Your task to perform on an android device: Do I have any events this weekend? Image 0: 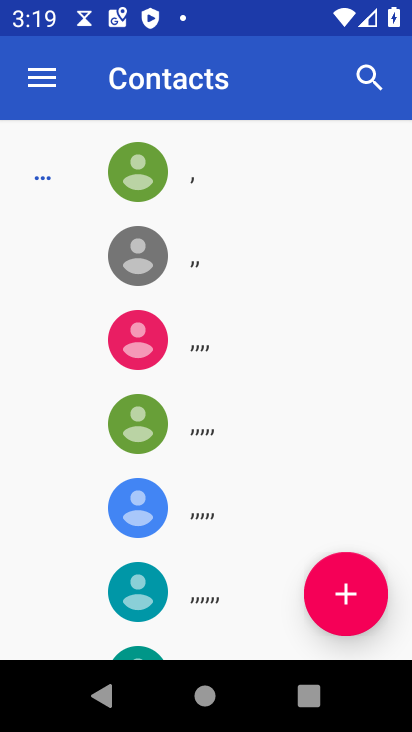
Step 0: press home button
Your task to perform on an android device: Do I have any events this weekend? Image 1: 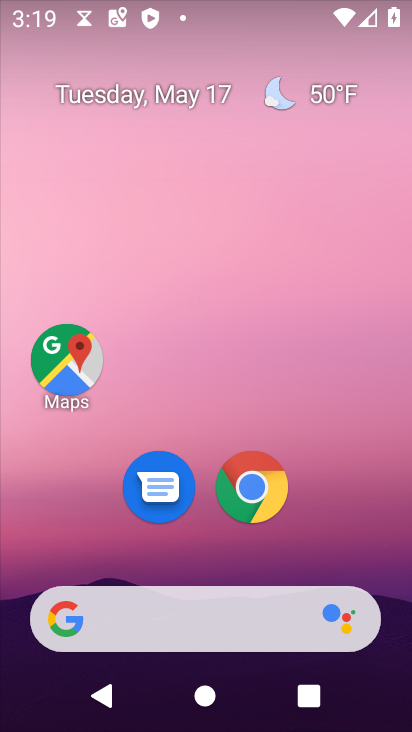
Step 1: drag from (399, 614) to (344, 196)
Your task to perform on an android device: Do I have any events this weekend? Image 2: 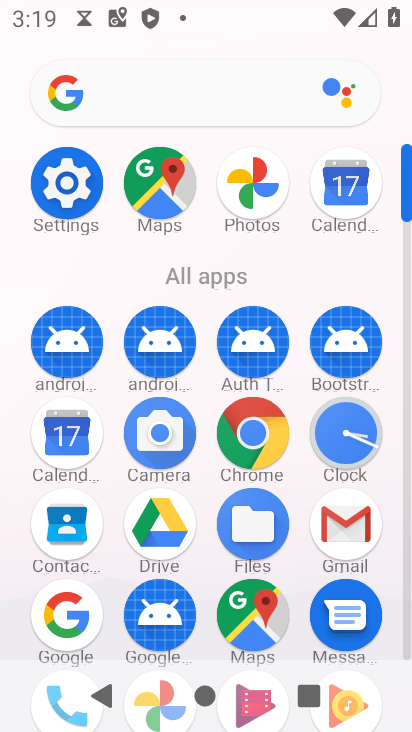
Step 2: click (409, 635)
Your task to perform on an android device: Do I have any events this weekend? Image 3: 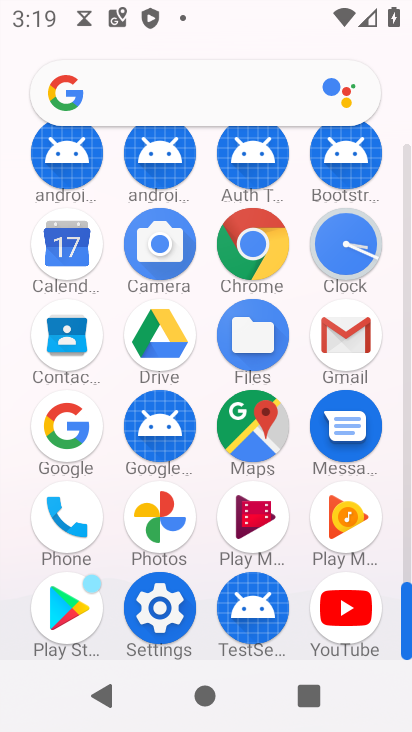
Step 3: click (62, 239)
Your task to perform on an android device: Do I have any events this weekend? Image 4: 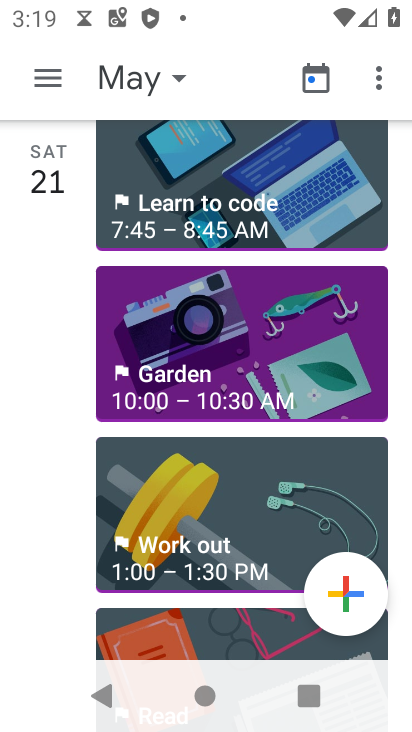
Step 4: click (49, 77)
Your task to perform on an android device: Do I have any events this weekend? Image 5: 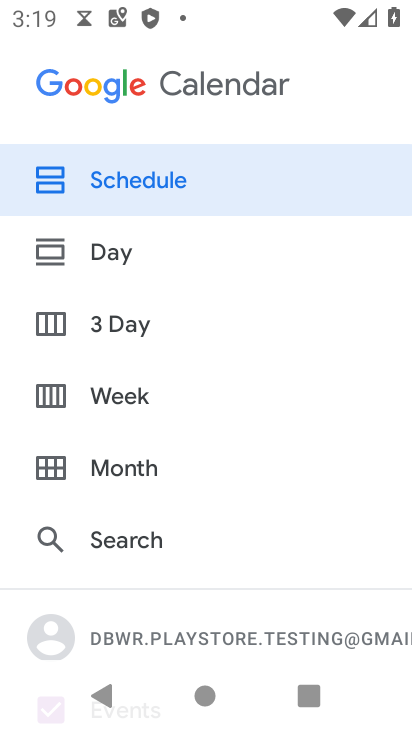
Step 5: click (137, 387)
Your task to perform on an android device: Do I have any events this weekend? Image 6: 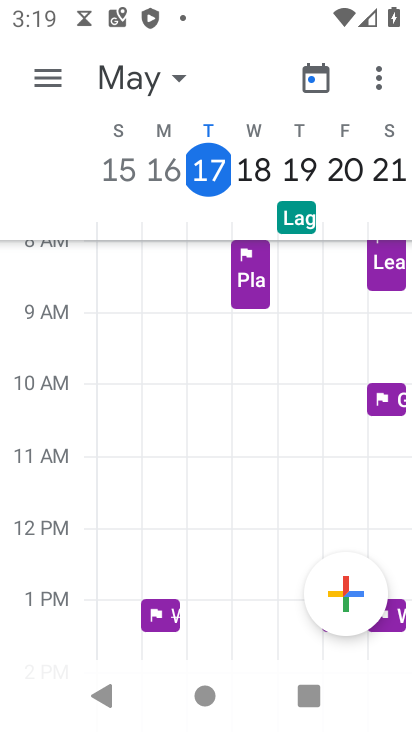
Step 6: click (183, 87)
Your task to perform on an android device: Do I have any events this weekend? Image 7: 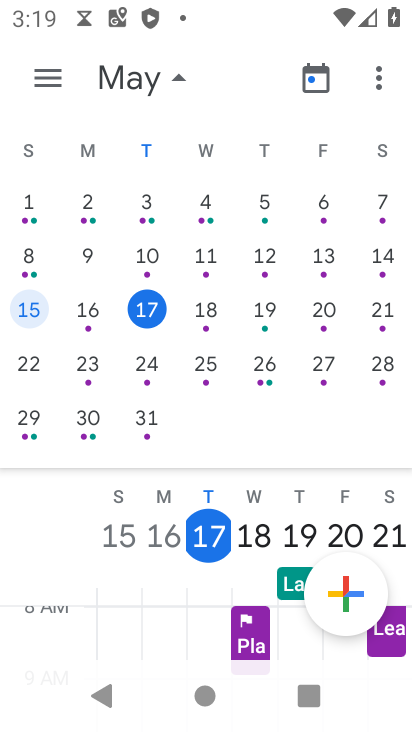
Step 7: click (148, 307)
Your task to perform on an android device: Do I have any events this weekend? Image 8: 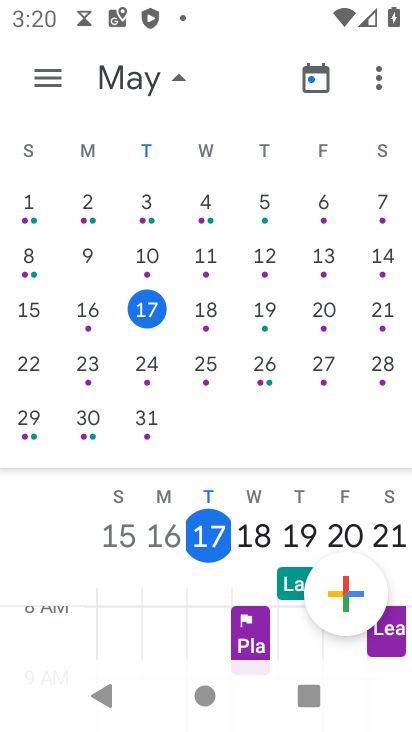
Step 8: task complete